Your task to perform on an android device: Open location settings Image 0: 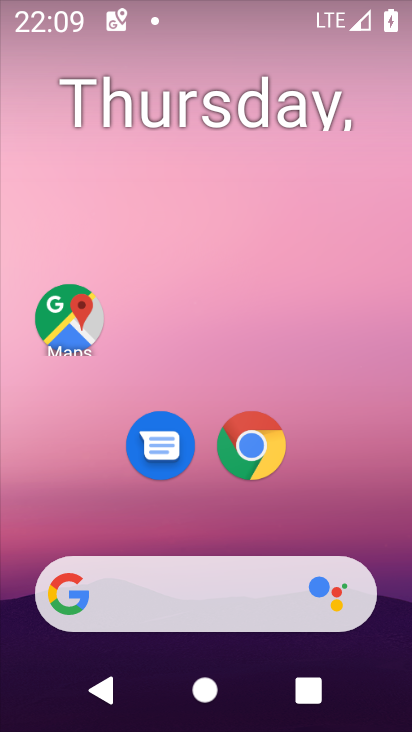
Step 0: drag from (270, 517) to (304, 149)
Your task to perform on an android device: Open location settings Image 1: 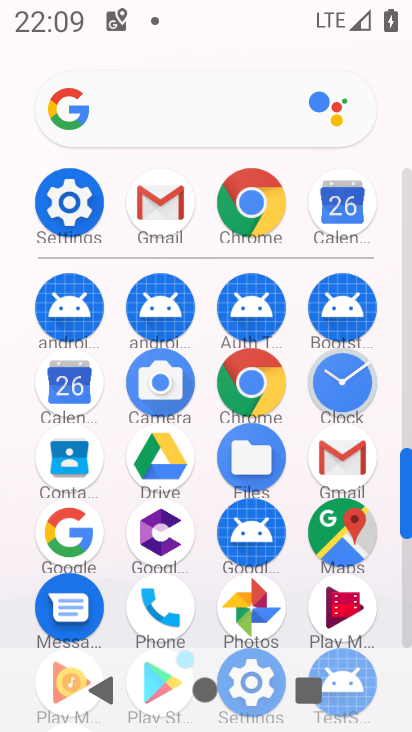
Step 1: drag from (201, 279) to (216, 111)
Your task to perform on an android device: Open location settings Image 2: 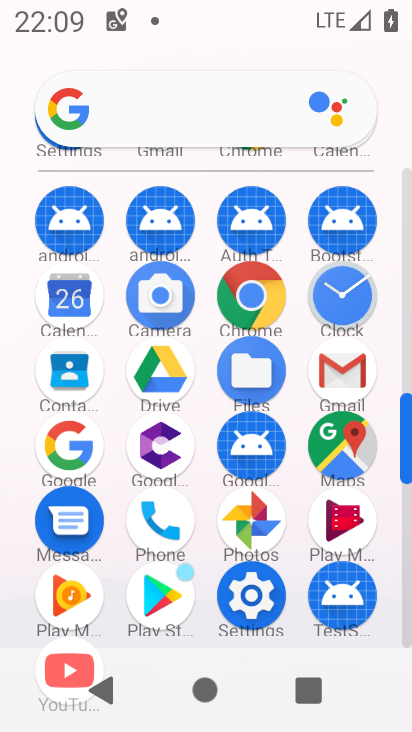
Step 2: click (264, 587)
Your task to perform on an android device: Open location settings Image 3: 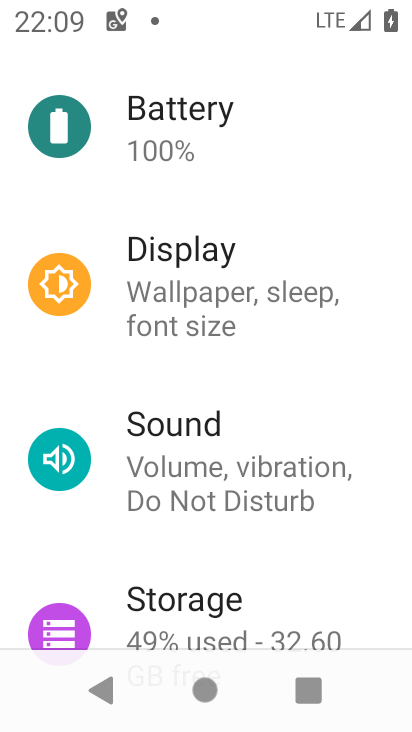
Step 3: drag from (201, 586) to (266, 277)
Your task to perform on an android device: Open location settings Image 4: 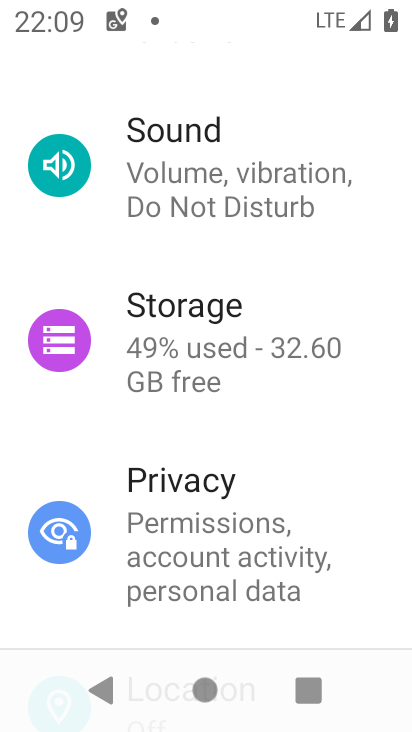
Step 4: drag from (204, 529) to (270, 245)
Your task to perform on an android device: Open location settings Image 5: 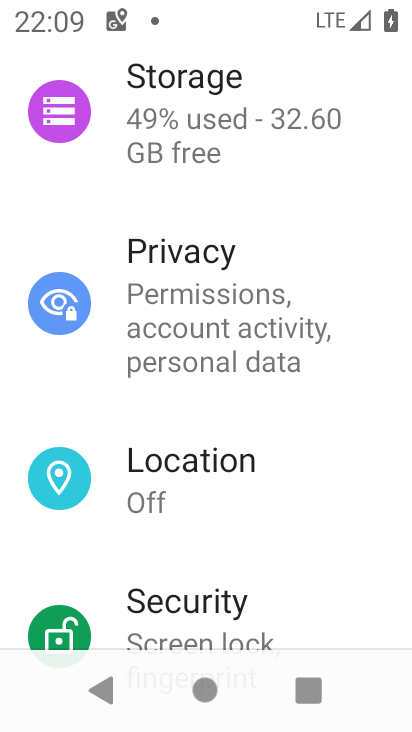
Step 5: click (209, 497)
Your task to perform on an android device: Open location settings Image 6: 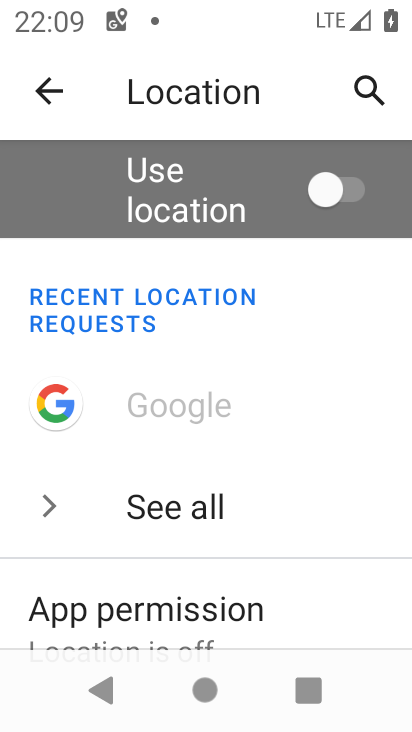
Step 6: task complete